Your task to perform on an android device: Open Google Maps Image 0: 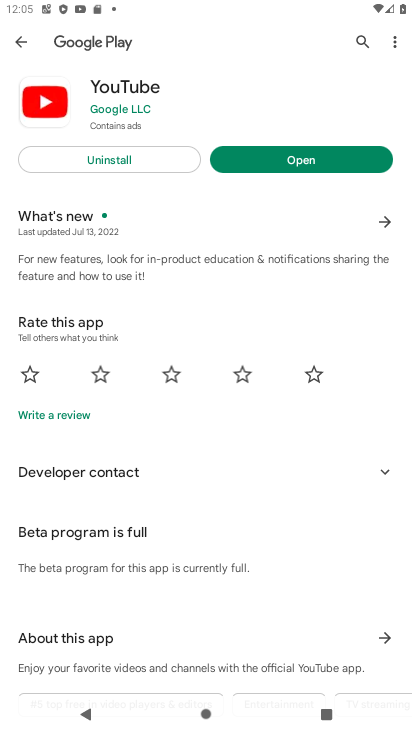
Step 0: press home button
Your task to perform on an android device: Open Google Maps Image 1: 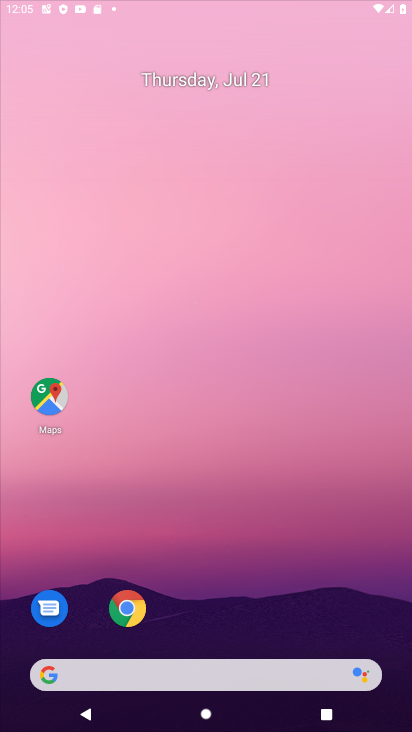
Step 1: drag from (388, 676) to (172, 46)
Your task to perform on an android device: Open Google Maps Image 2: 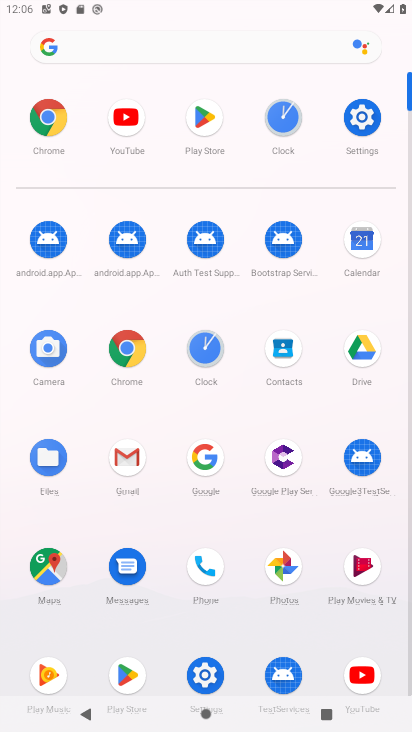
Step 2: click (60, 583)
Your task to perform on an android device: Open Google Maps Image 3: 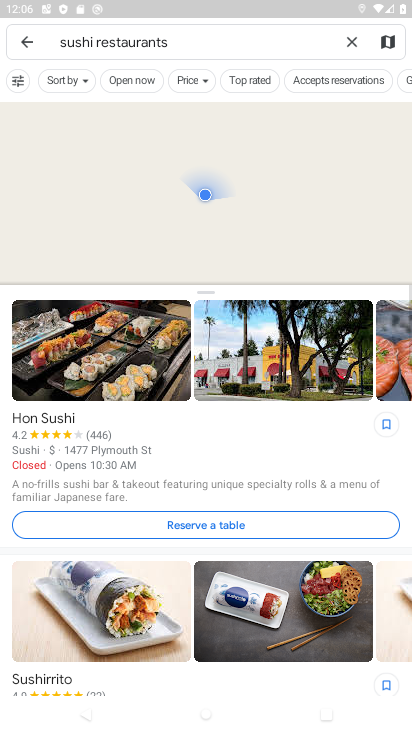
Step 3: click (350, 44)
Your task to perform on an android device: Open Google Maps Image 4: 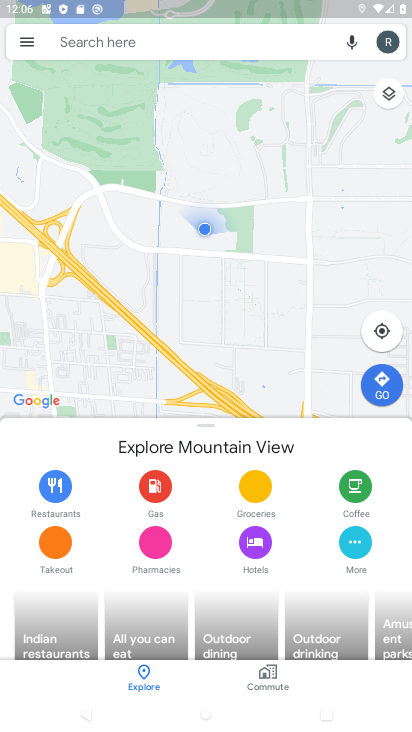
Step 4: task complete